Your task to perform on an android device: see sites visited before in the chrome app Image 0: 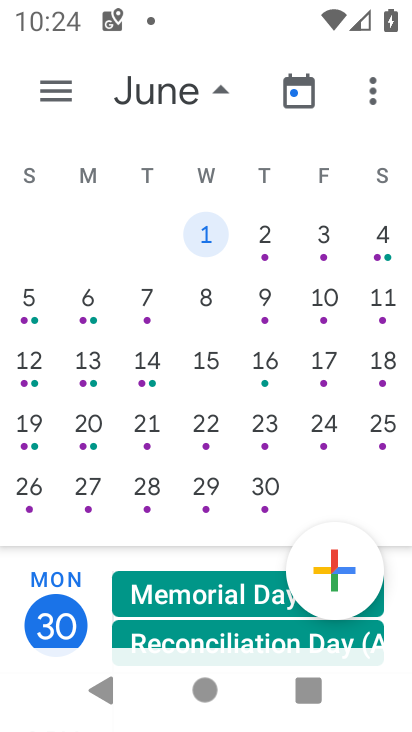
Step 0: press home button
Your task to perform on an android device: see sites visited before in the chrome app Image 1: 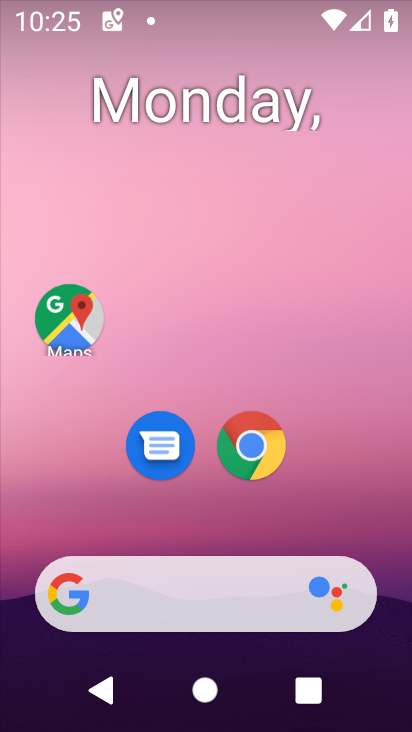
Step 1: click (240, 442)
Your task to perform on an android device: see sites visited before in the chrome app Image 2: 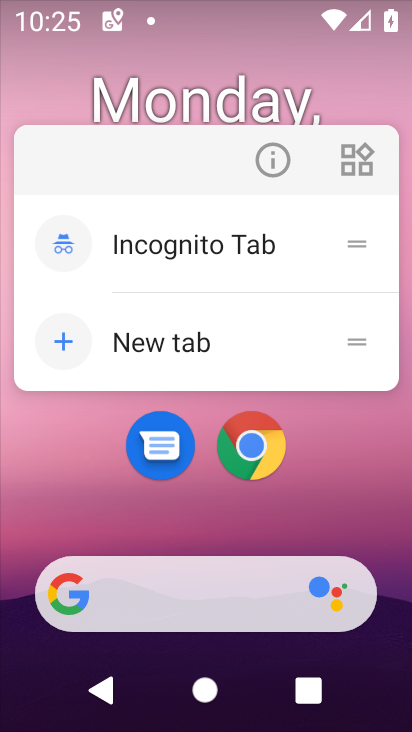
Step 2: click (240, 442)
Your task to perform on an android device: see sites visited before in the chrome app Image 3: 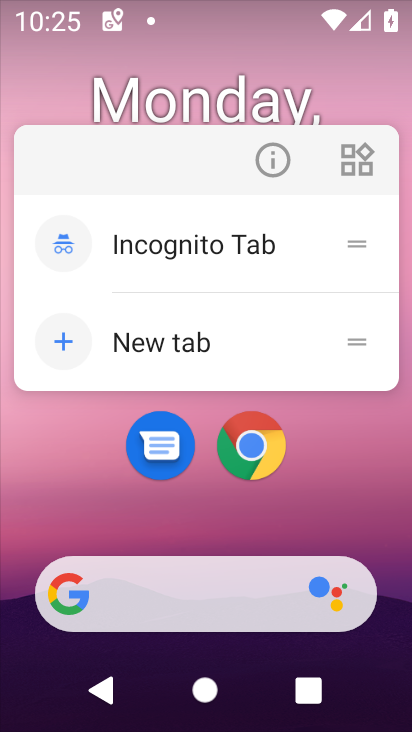
Step 3: click (240, 442)
Your task to perform on an android device: see sites visited before in the chrome app Image 4: 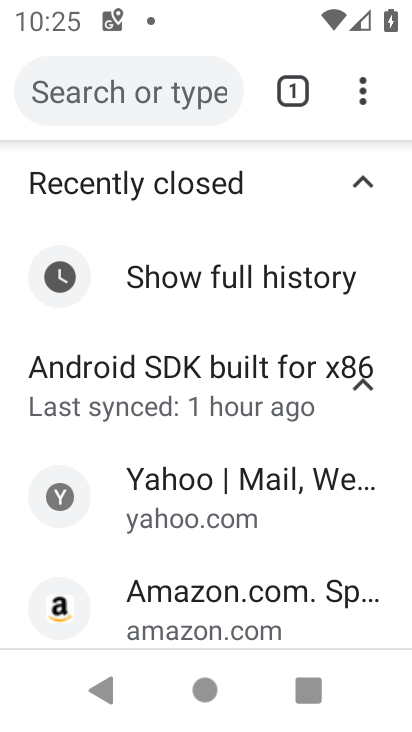
Step 4: task complete